Your task to perform on an android device: Open calendar and show me the fourth week of next month Image 0: 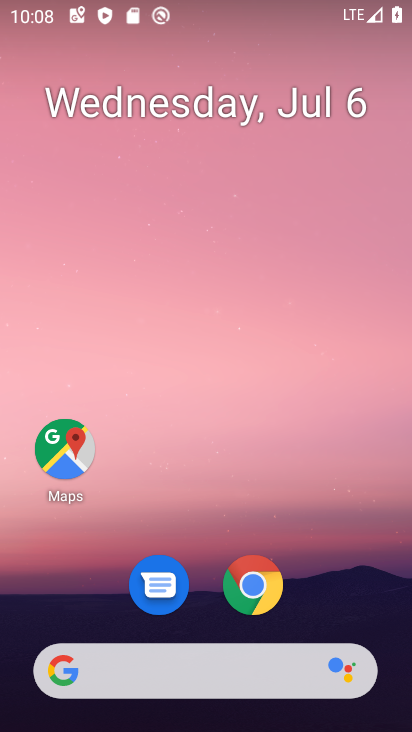
Step 0: drag from (246, 221) to (261, 52)
Your task to perform on an android device: Open calendar and show me the fourth week of next month Image 1: 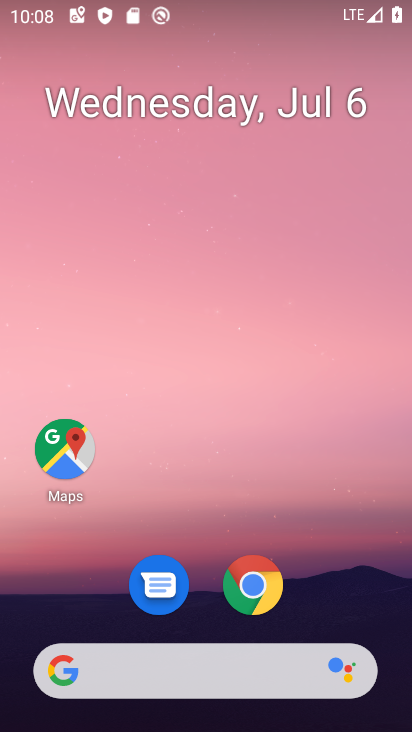
Step 1: drag from (341, 562) to (338, 4)
Your task to perform on an android device: Open calendar and show me the fourth week of next month Image 2: 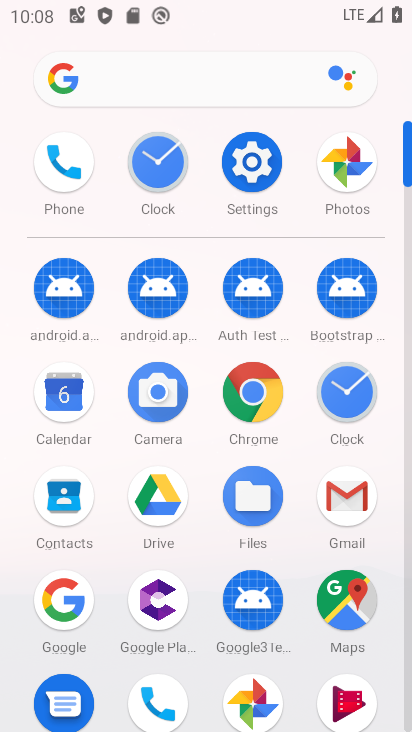
Step 2: click (63, 395)
Your task to perform on an android device: Open calendar and show me the fourth week of next month Image 3: 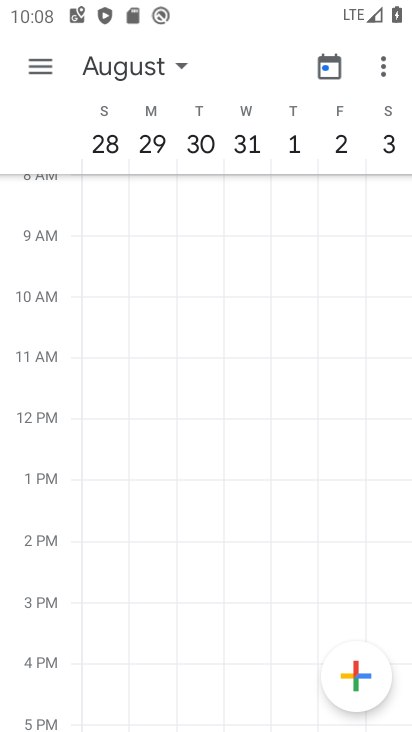
Step 3: task complete